Your task to perform on an android device: Turn on the flashlight Image 0: 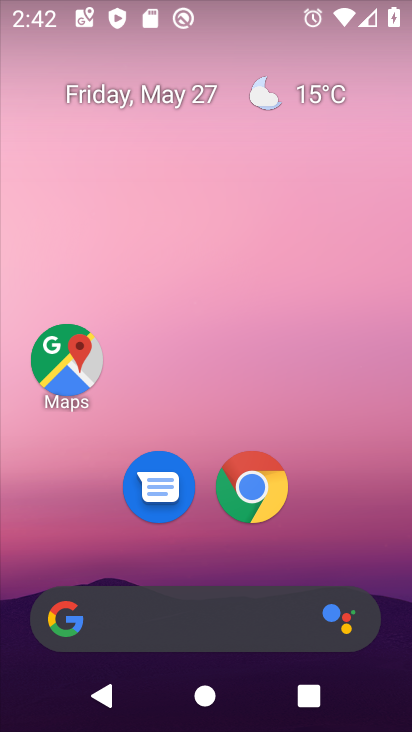
Step 0: drag from (169, 570) to (225, 97)
Your task to perform on an android device: Turn on the flashlight Image 1: 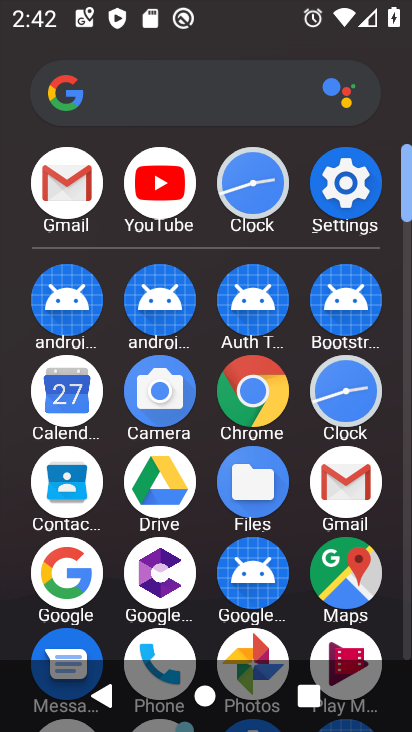
Step 1: click (329, 176)
Your task to perform on an android device: Turn on the flashlight Image 2: 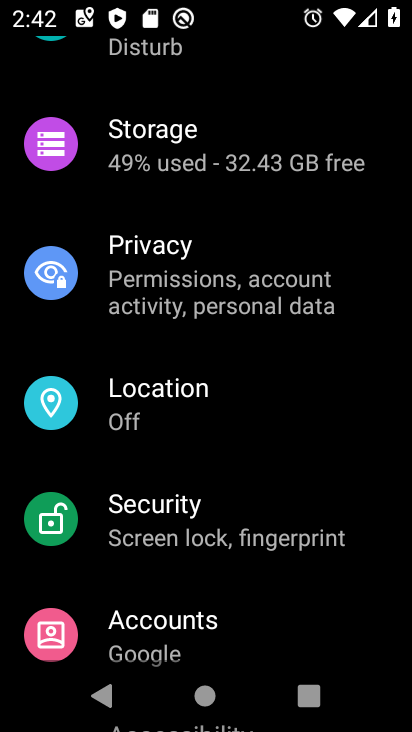
Step 2: task complete